Your task to perform on an android device: check battery use Image 0: 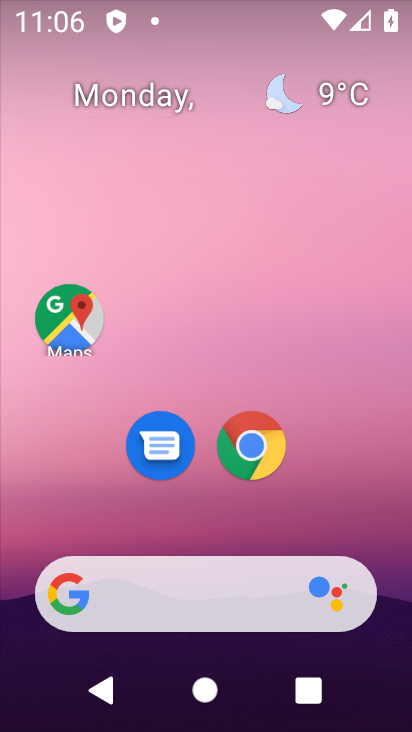
Step 0: drag from (166, 615) to (178, 72)
Your task to perform on an android device: check battery use Image 1: 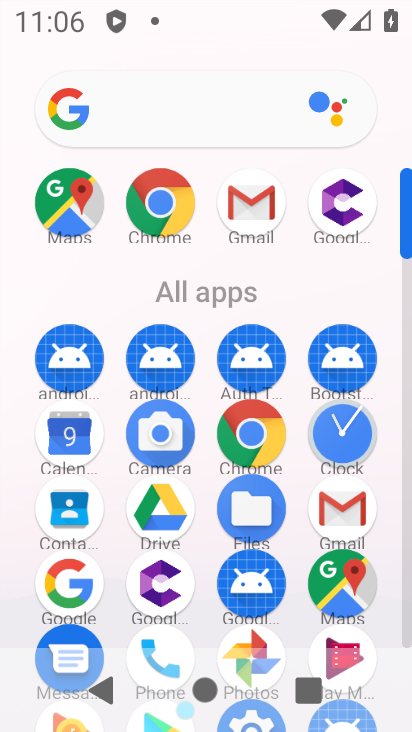
Step 1: drag from (316, 630) to (309, 282)
Your task to perform on an android device: check battery use Image 2: 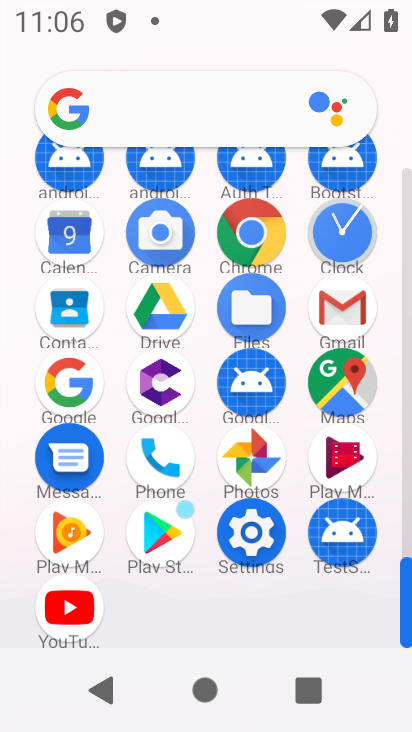
Step 2: click (263, 542)
Your task to perform on an android device: check battery use Image 3: 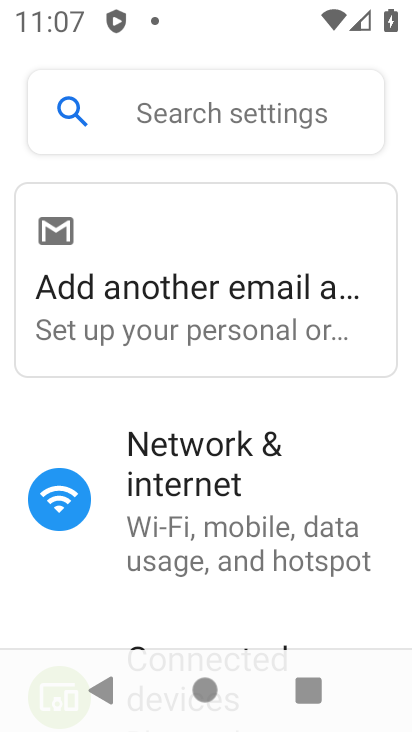
Step 3: task complete